Your task to perform on an android device: turn off notifications in google photos Image 0: 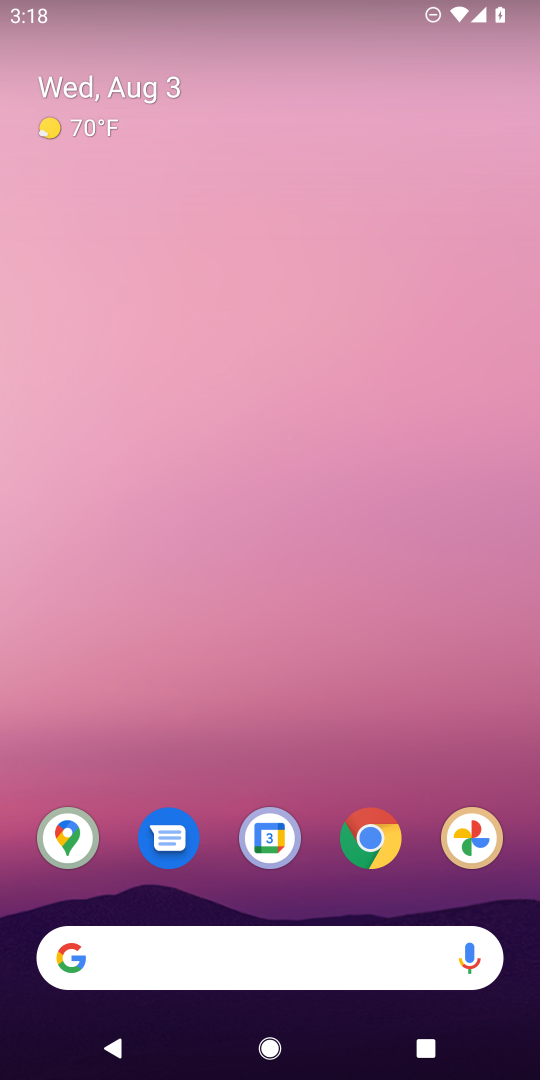
Step 0: click (477, 838)
Your task to perform on an android device: turn off notifications in google photos Image 1: 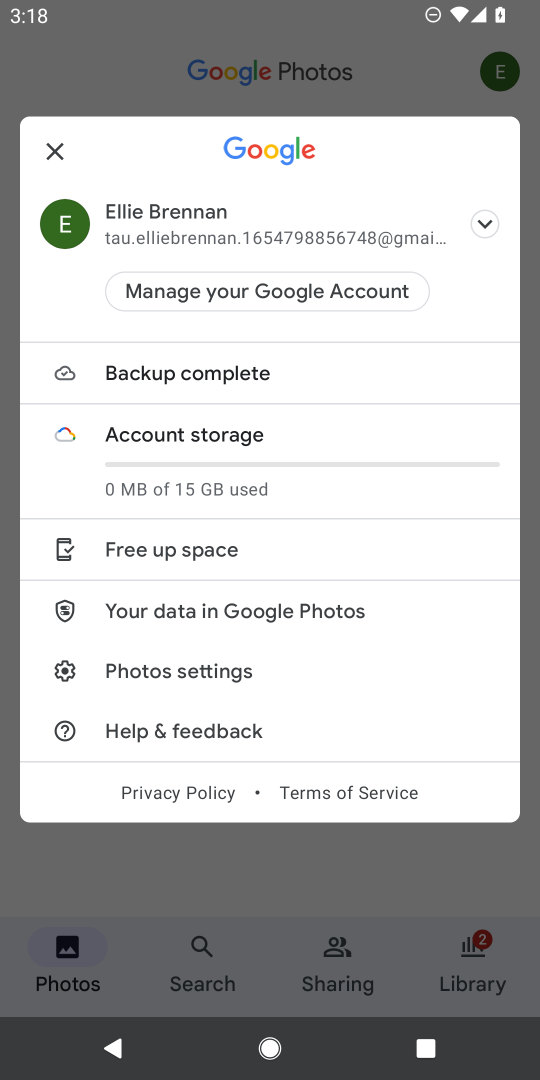
Step 1: click (193, 668)
Your task to perform on an android device: turn off notifications in google photos Image 2: 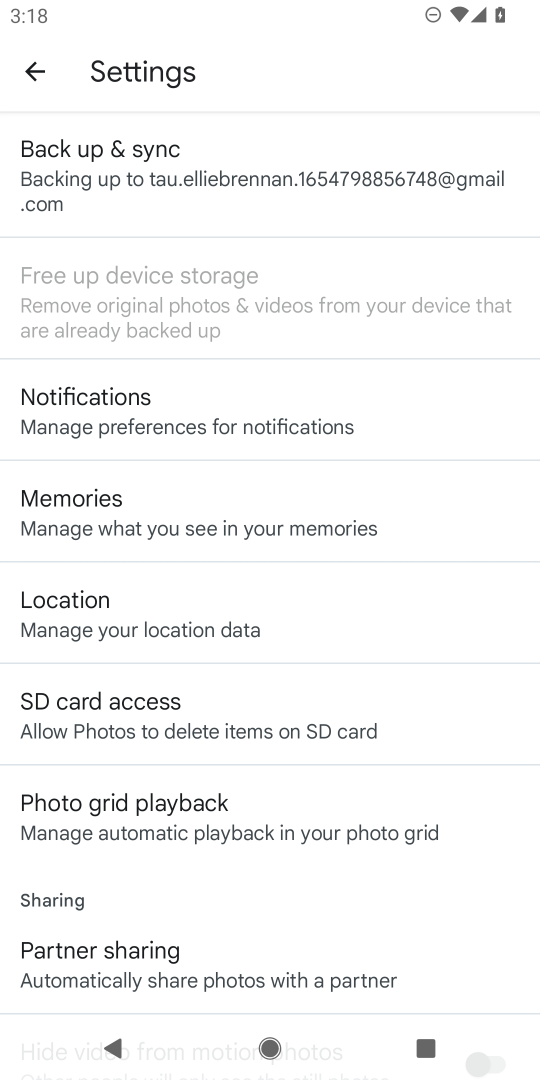
Step 2: click (164, 390)
Your task to perform on an android device: turn off notifications in google photos Image 3: 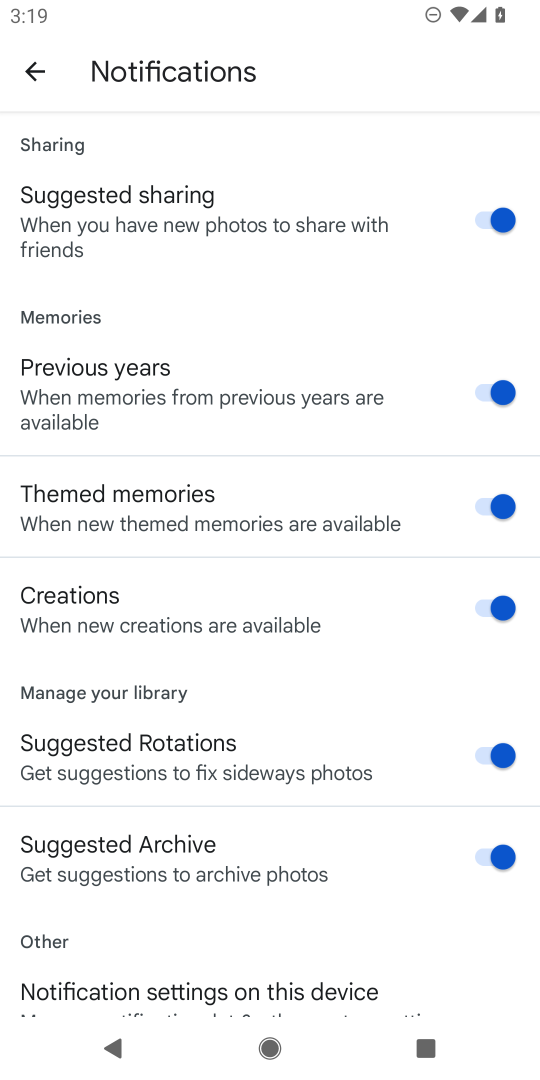
Step 3: click (189, 973)
Your task to perform on an android device: turn off notifications in google photos Image 4: 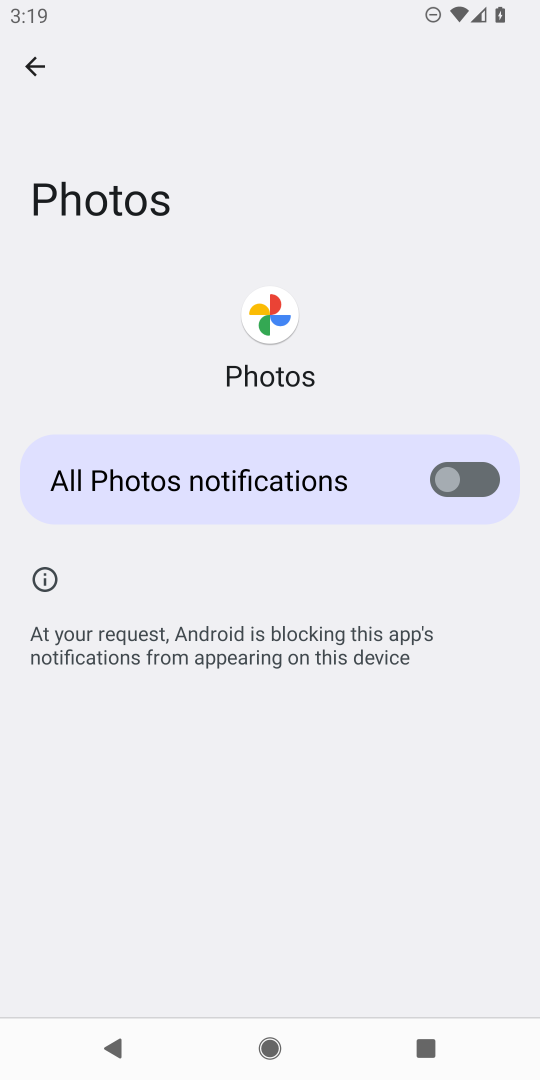
Step 4: task complete